Your task to perform on an android device: change notifications settings Image 0: 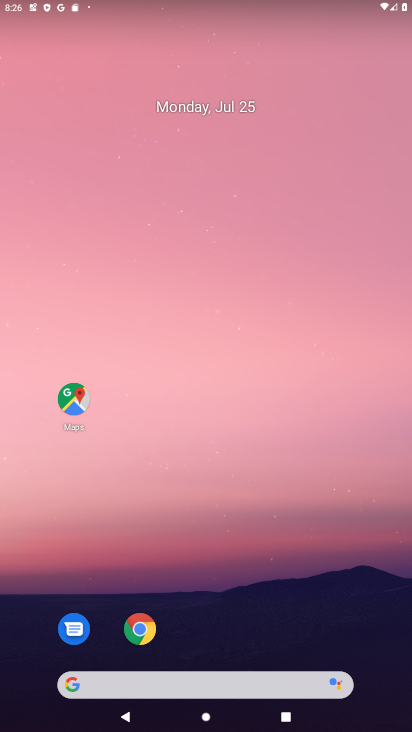
Step 0: drag from (236, 653) to (299, 16)
Your task to perform on an android device: change notifications settings Image 1: 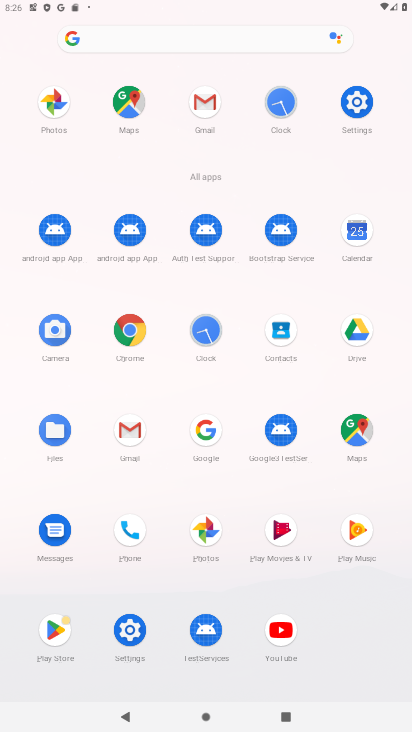
Step 1: click (358, 102)
Your task to perform on an android device: change notifications settings Image 2: 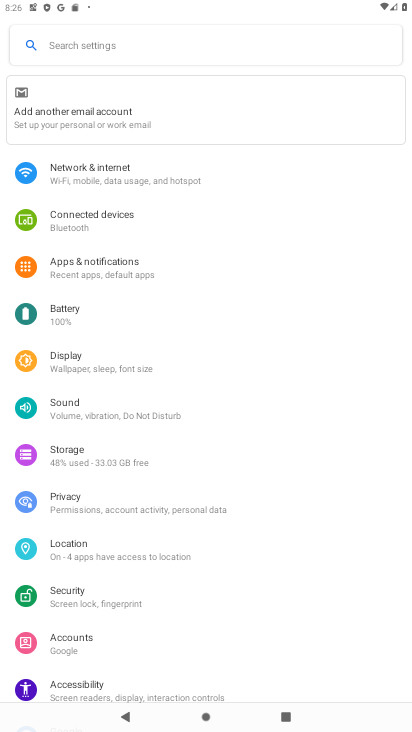
Step 2: click (93, 273)
Your task to perform on an android device: change notifications settings Image 3: 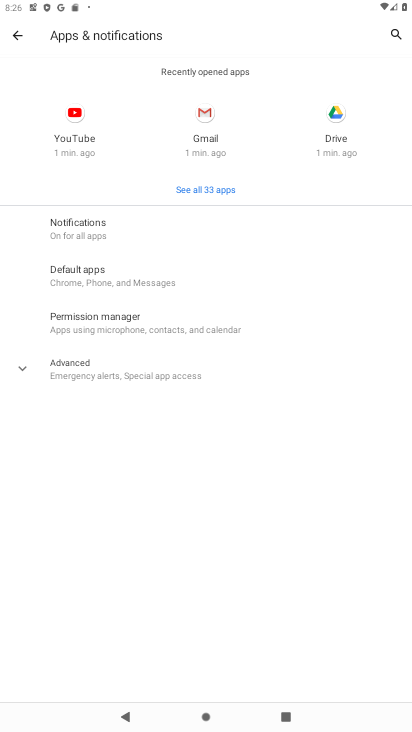
Step 3: click (87, 224)
Your task to perform on an android device: change notifications settings Image 4: 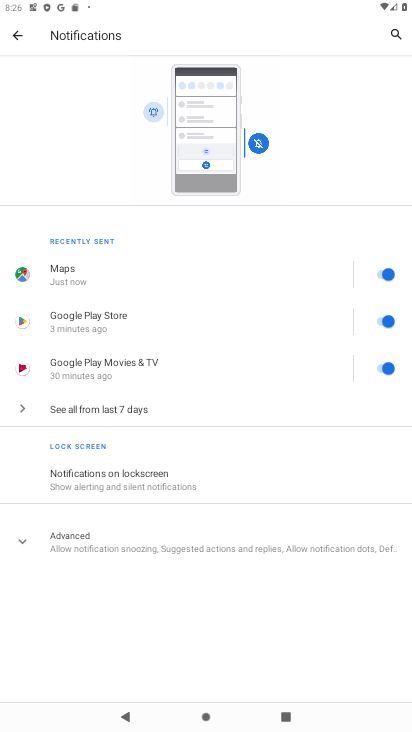
Step 4: click (96, 415)
Your task to perform on an android device: change notifications settings Image 5: 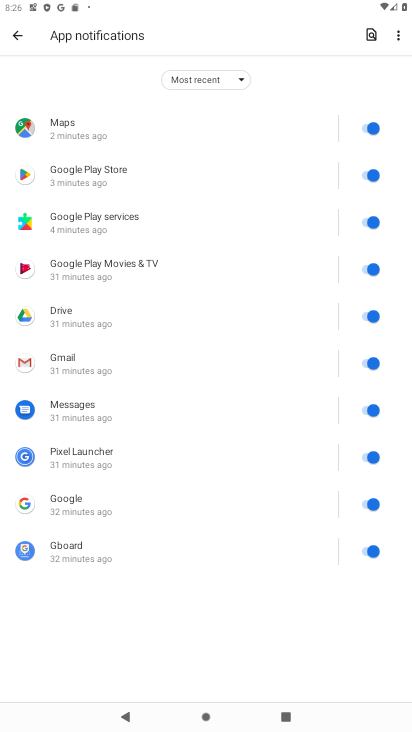
Step 5: click (243, 86)
Your task to perform on an android device: change notifications settings Image 6: 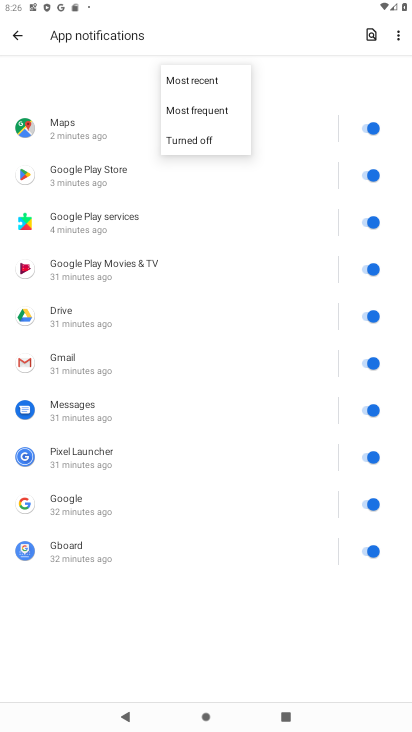
Step 6: click (195, 109)
Your task to perform on an android device: change notifications settings Image 7: 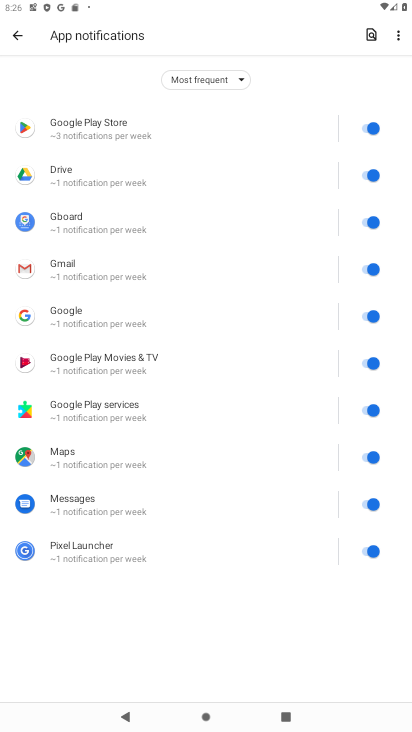
Step 7: task complete